Your task to perform on an android device: Search for Italian restaurants on Maps Image 0: 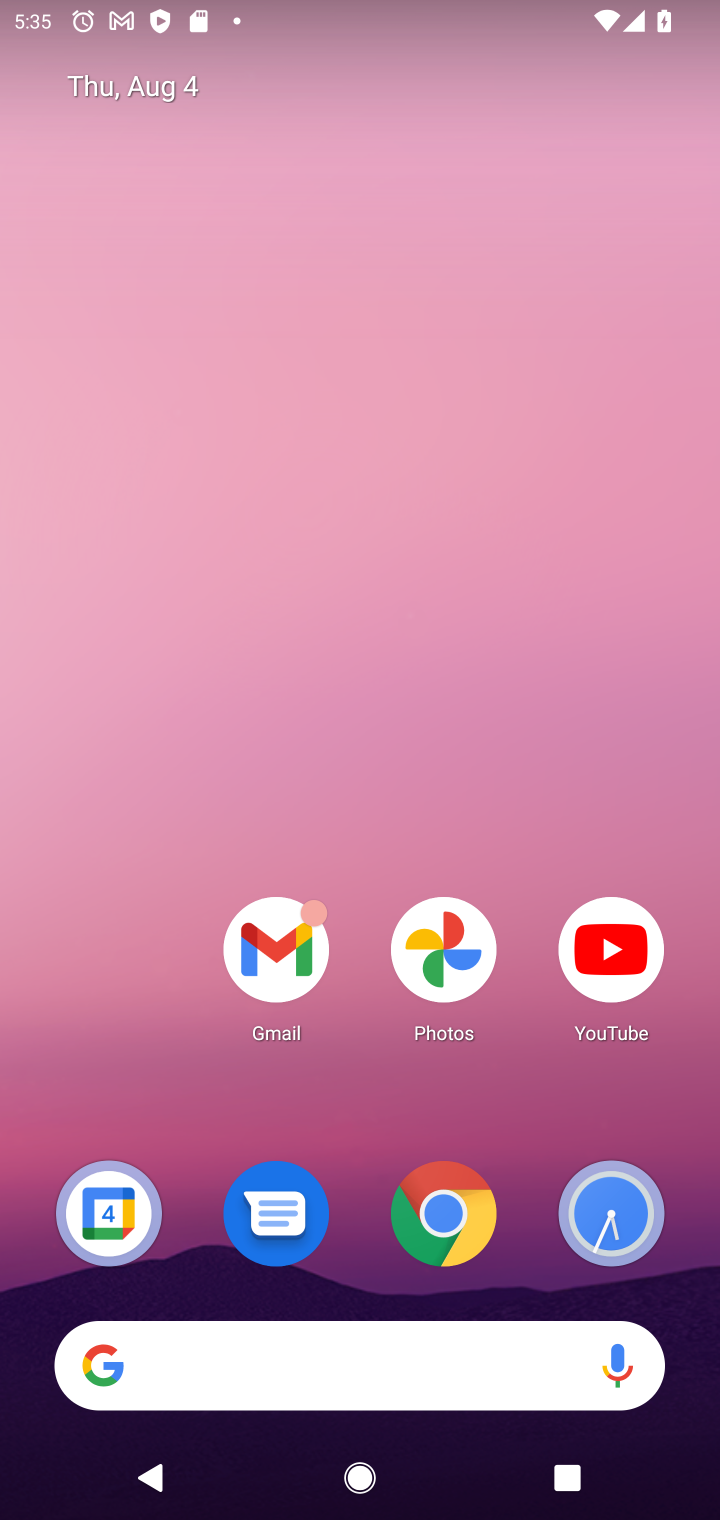
Step 0: drag from (171, 1073) to (247, 85)
Your task to perform on an android device: Search for Italian restaurants on Maps Image 1: 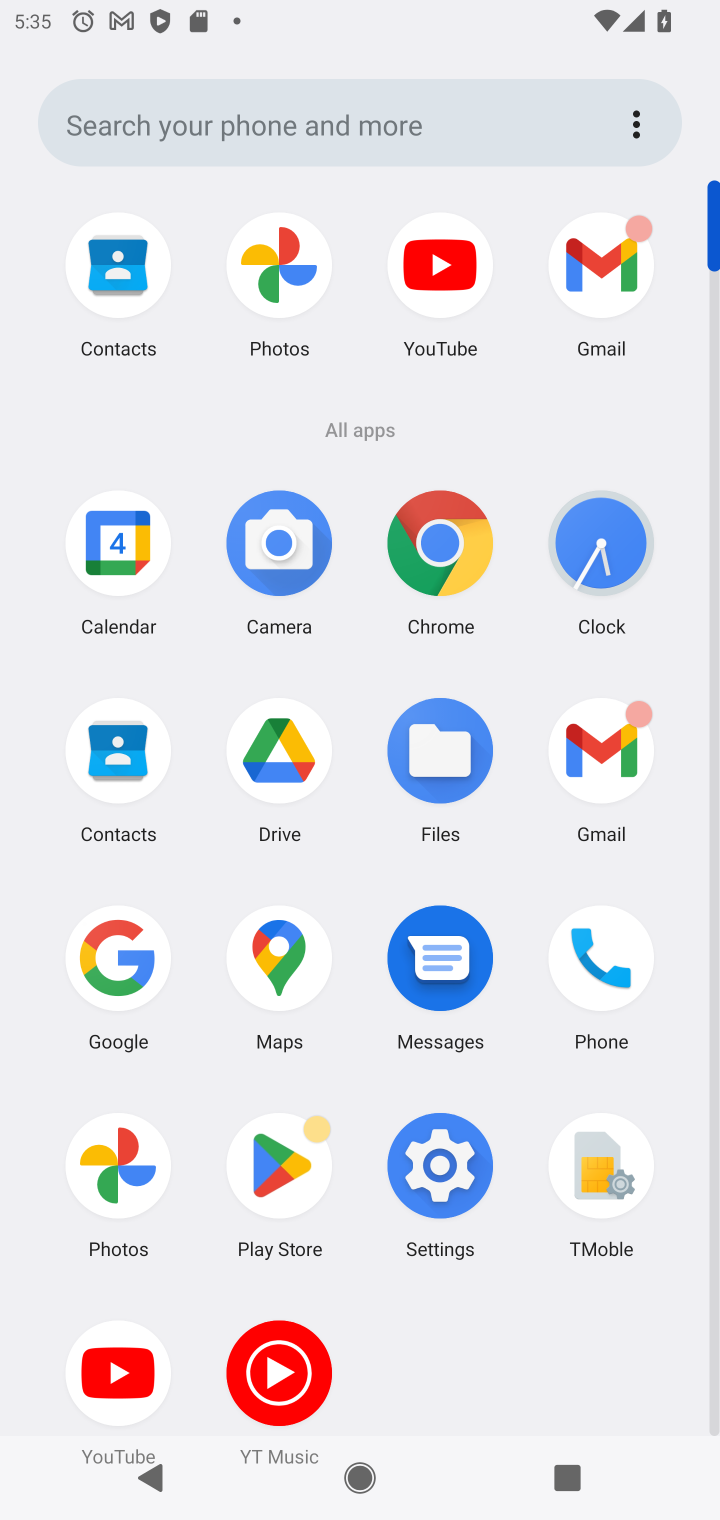
Step 1: click (287, 962)
Your task to perform on an android device: Search for Italian restaurants on Maps Image 2: 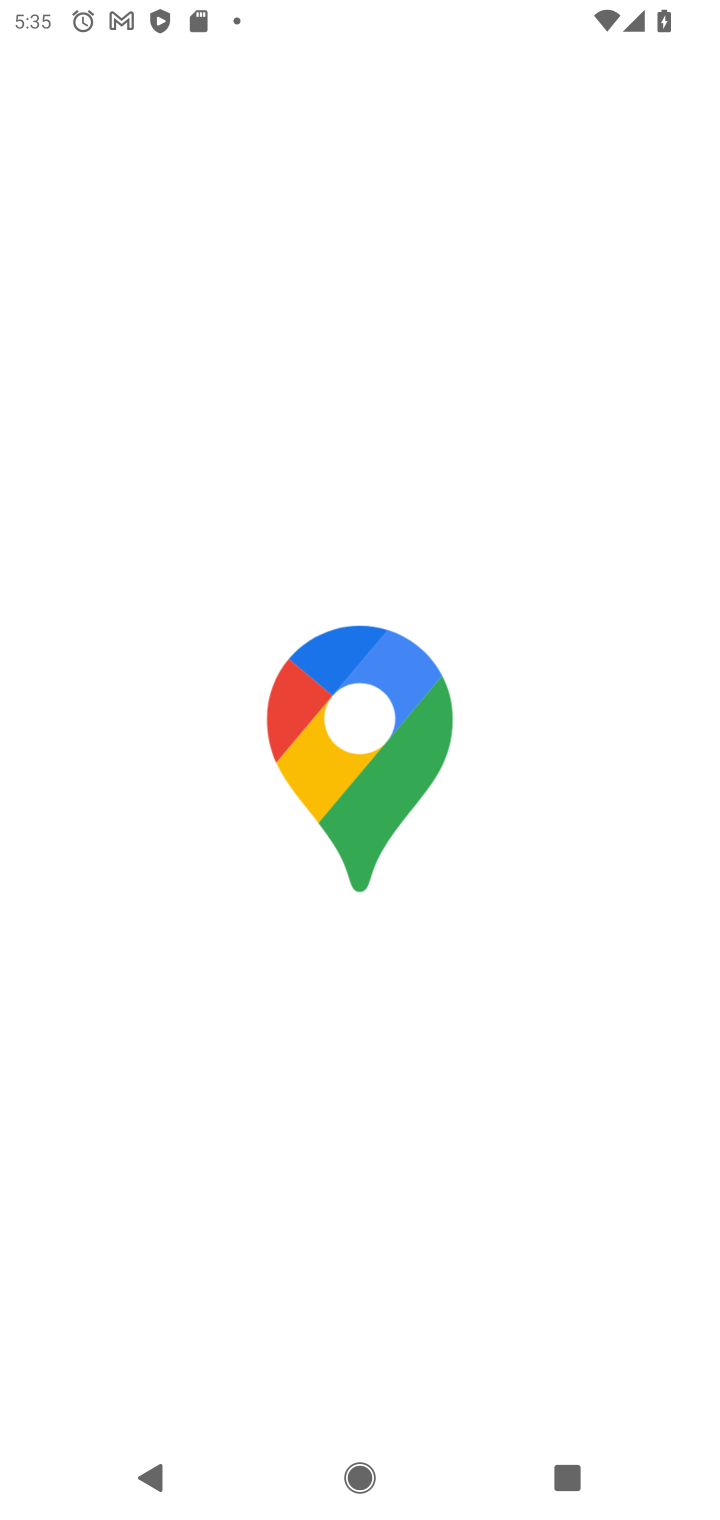
Step 2: click (455, 632)
Your task to perform on an android device: Search for Italian restaurants on Maps Image 3: 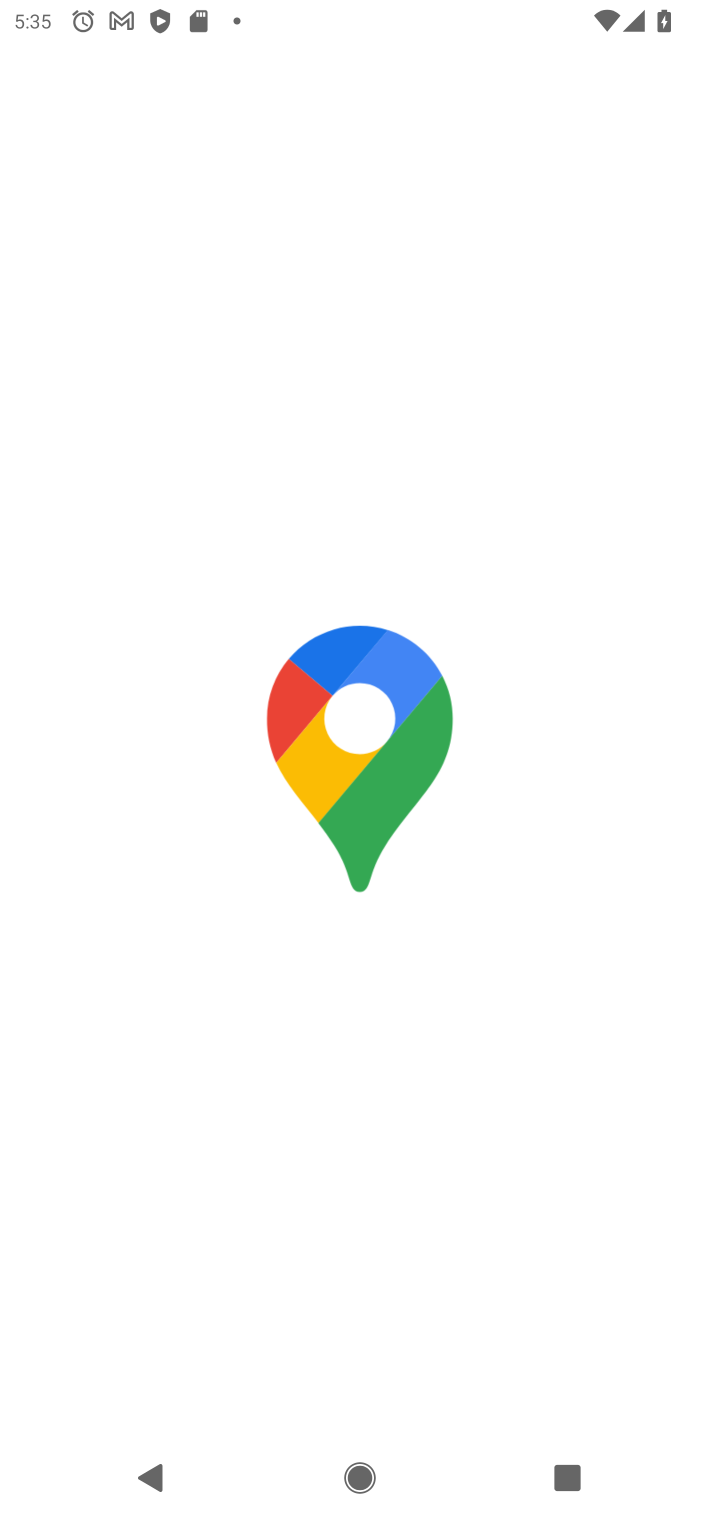
Step 3: drag from (470, 605) to (488, 1000)
Your task to perform on an android device: Search for Italian restaurants on Maps Image 4: 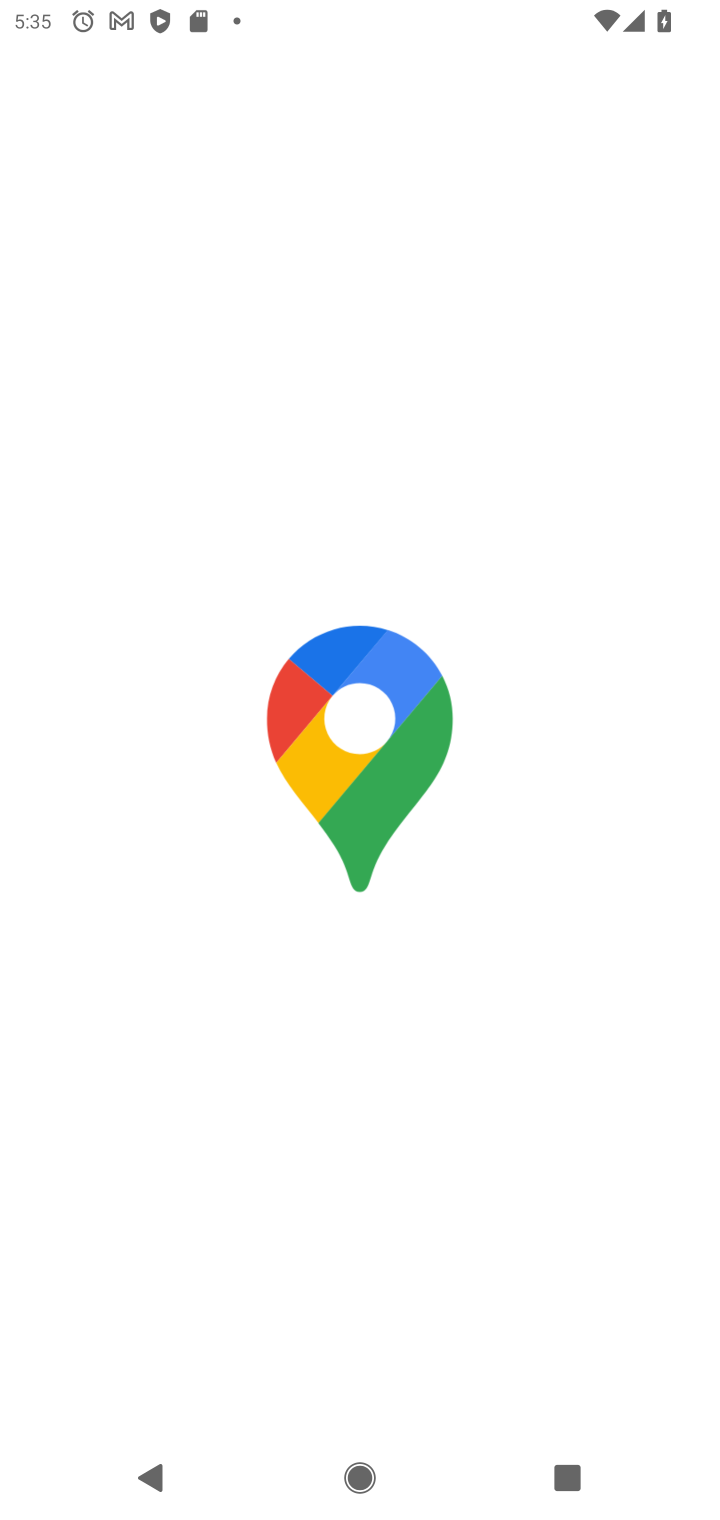
Step 4: drag from (501, 879) to (500, 406)
Your task to perform on an android device: Search for Italian restaurants on Maps Image 5: 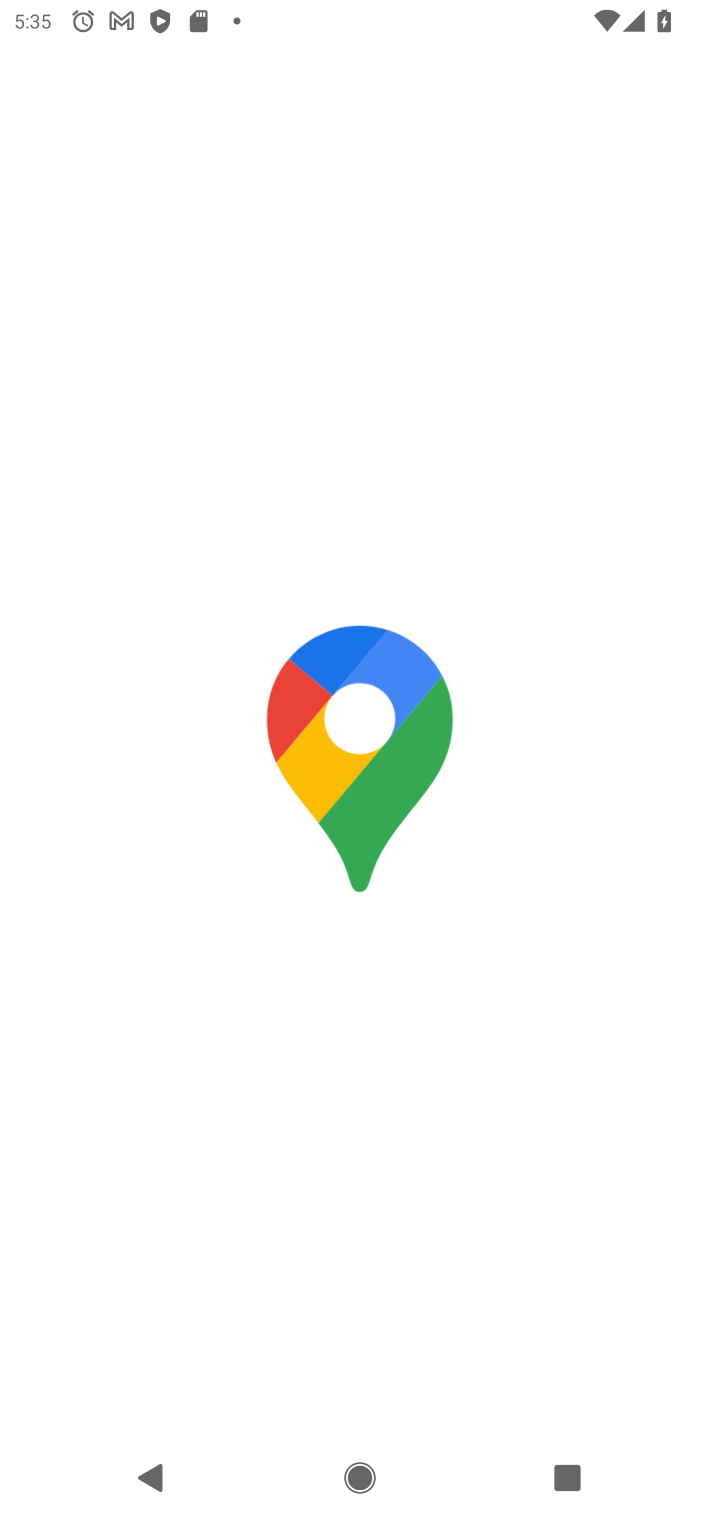
Step 5: drag from (545, 895) to (476, 311)
Your task to perform on an android device: Search for Italian restaurants on Maps Image 6: 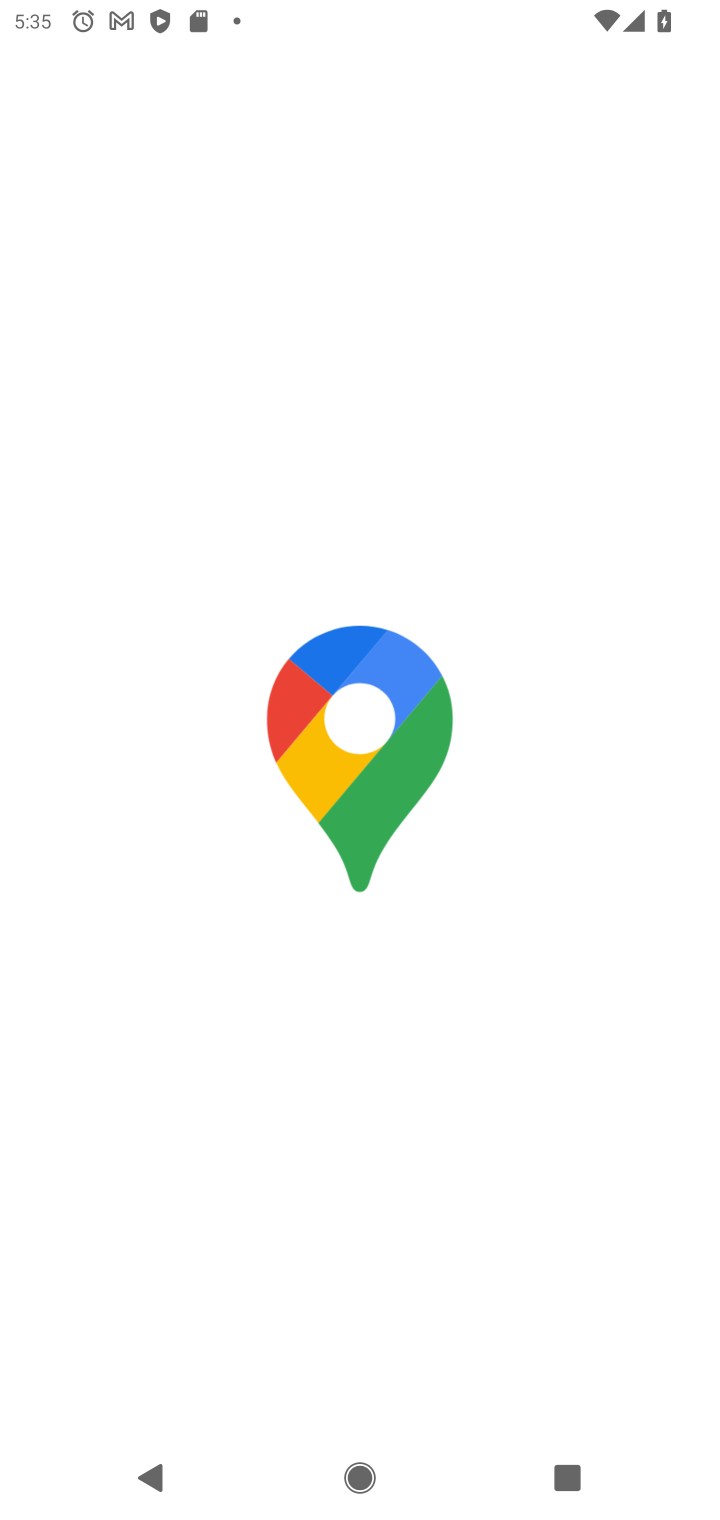
Step 6: click (318, 367)
Your task to perform on an android device: Search for Italian restaurants on Maps Image 7: 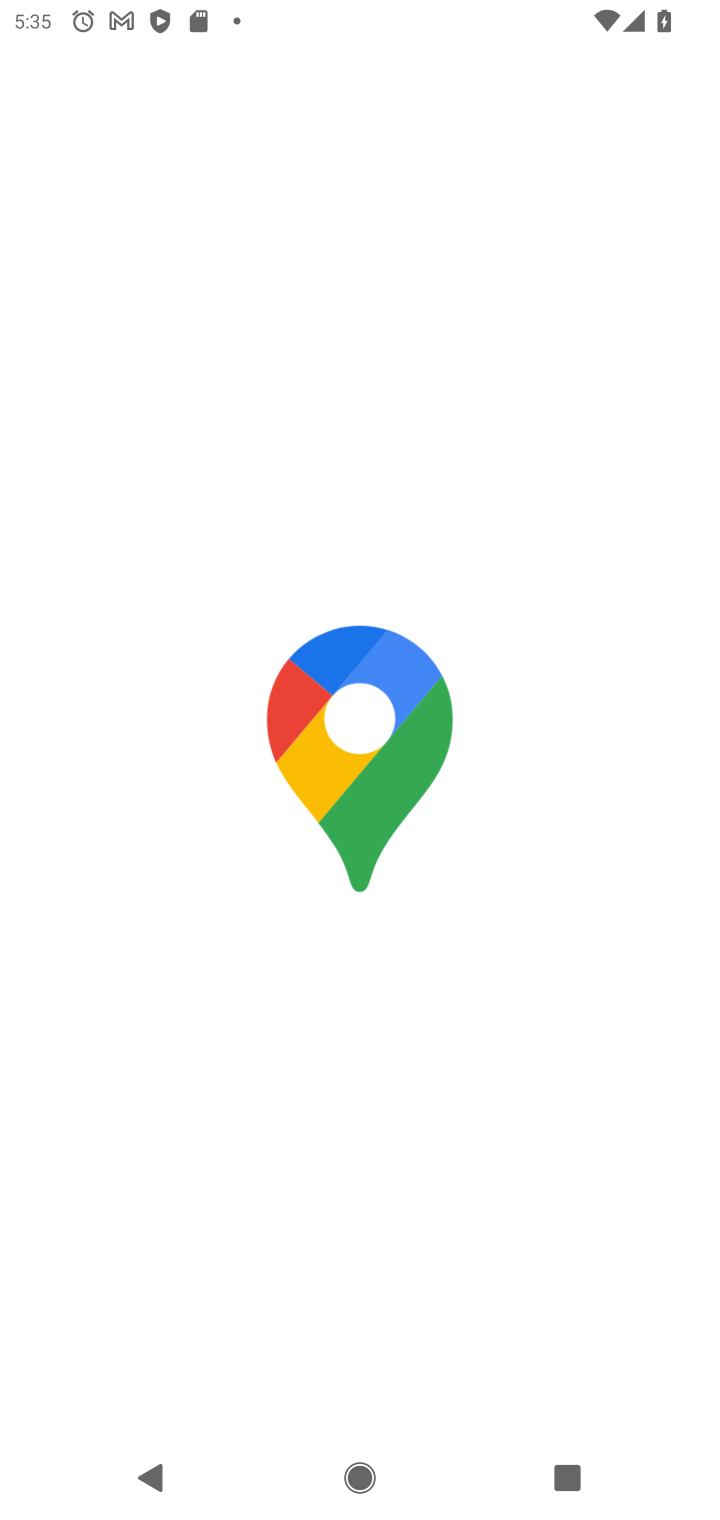
Step 7: drag from (341, 1006) to (371, 552)
Your task to perform on an android device: Search for Italian restaurants on Maps Image 8: 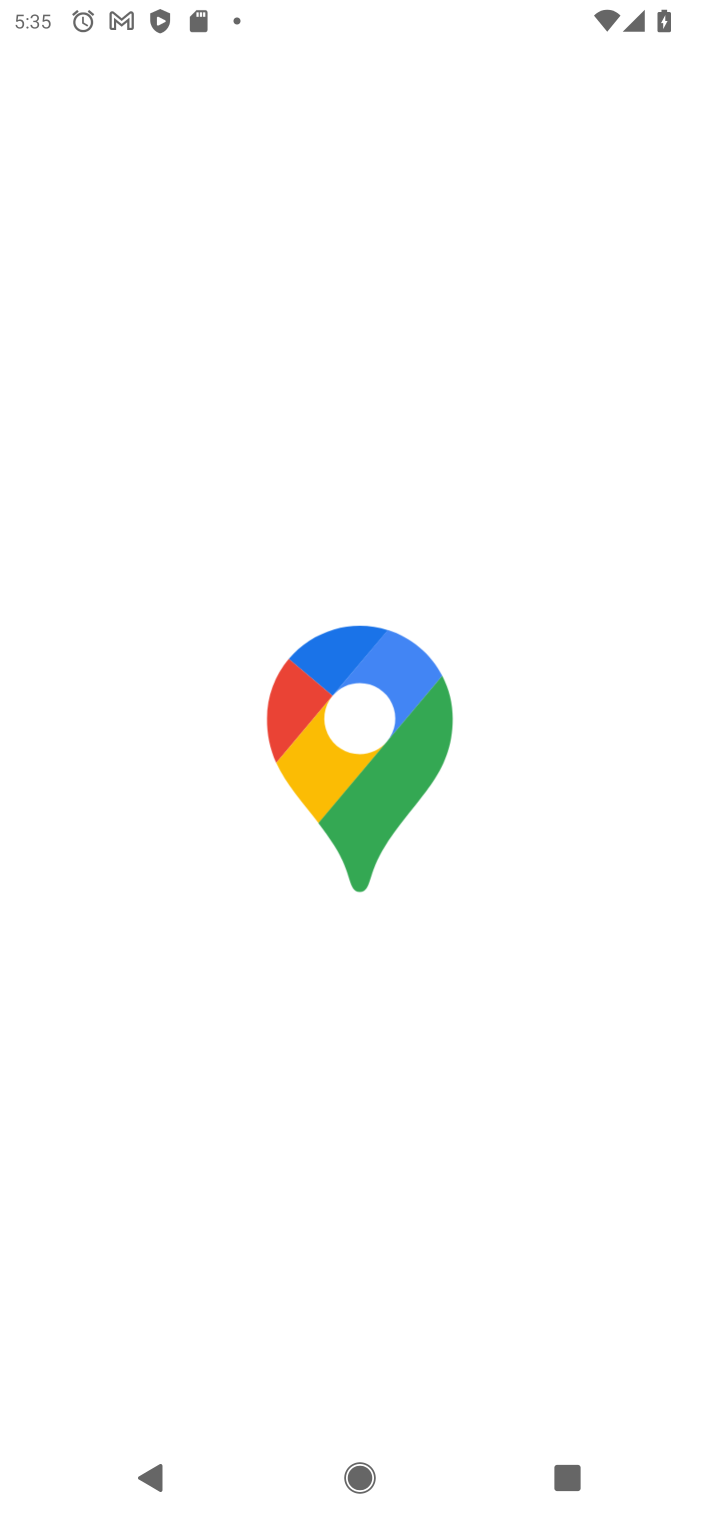
Step 8: click (371, 525)
Your task to perform on an android device: Search for Italian restaurants on Maps Image 9: 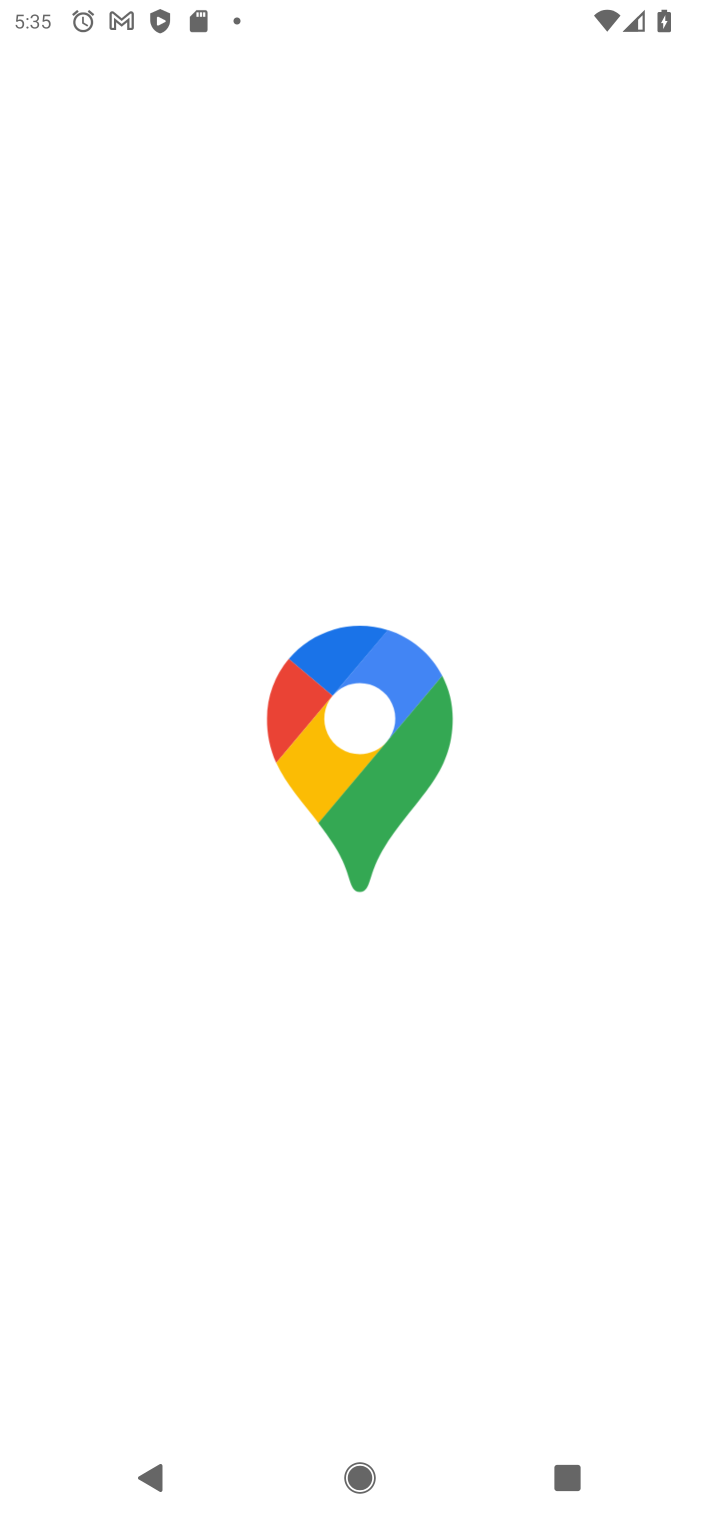
Step 9: press home button
Your task to perform on an android device: Search for Italian restaurants on Maps Image 10: 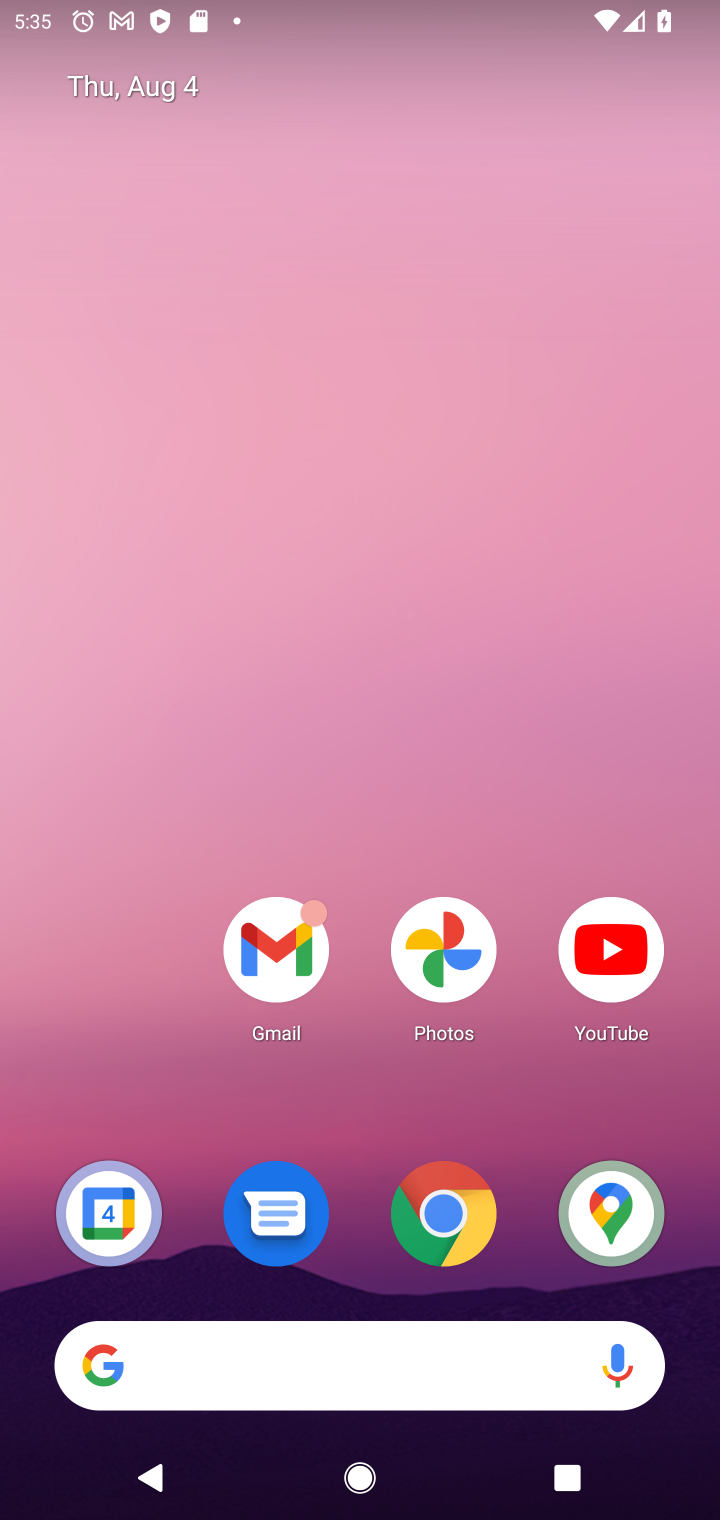
Step 10: drag from (179, 797) to (198, 901)
Your task to perform on an android device: Search for Italian restaurants on Maps Image 11: 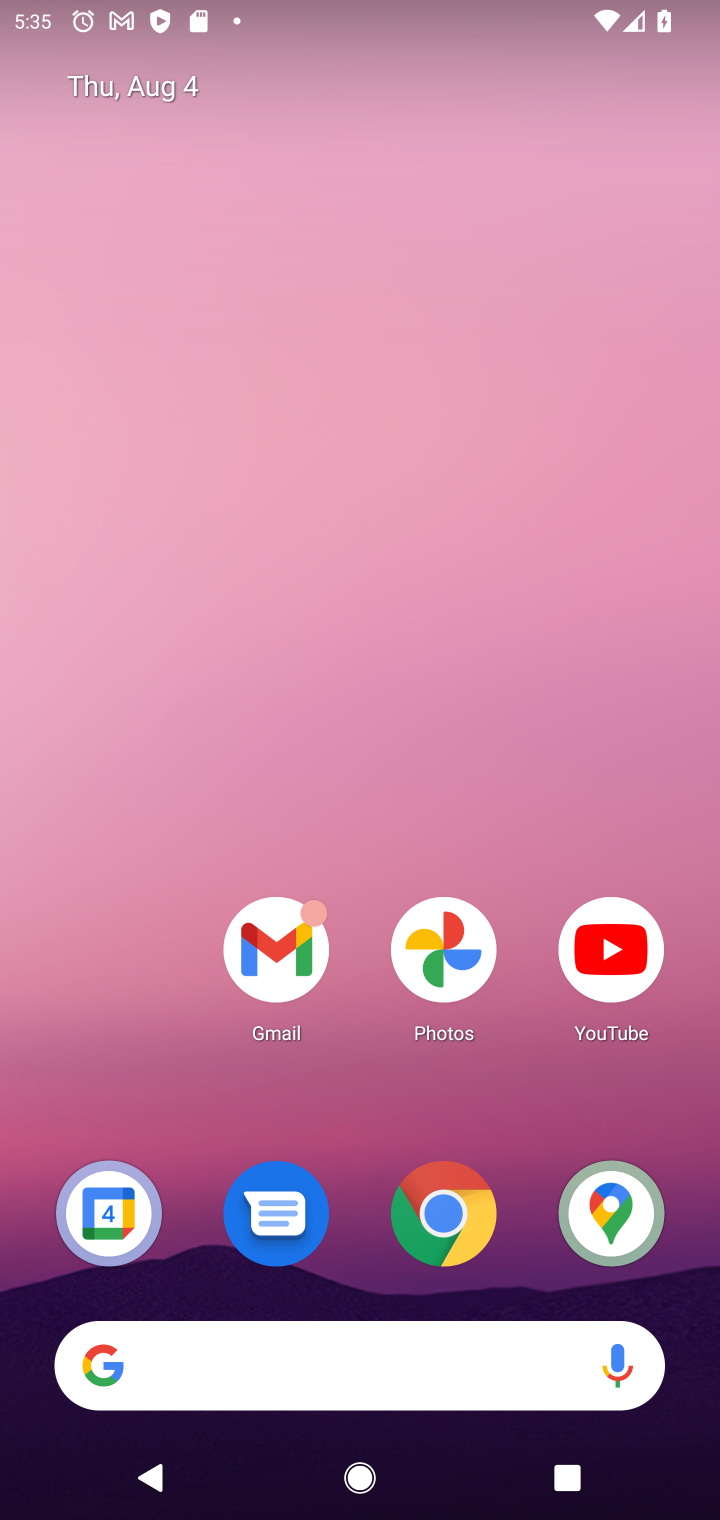
Step 11: click (623, 1215)
Your task to perform on an android device: Search for Italian restaurants on Maps Image 12: 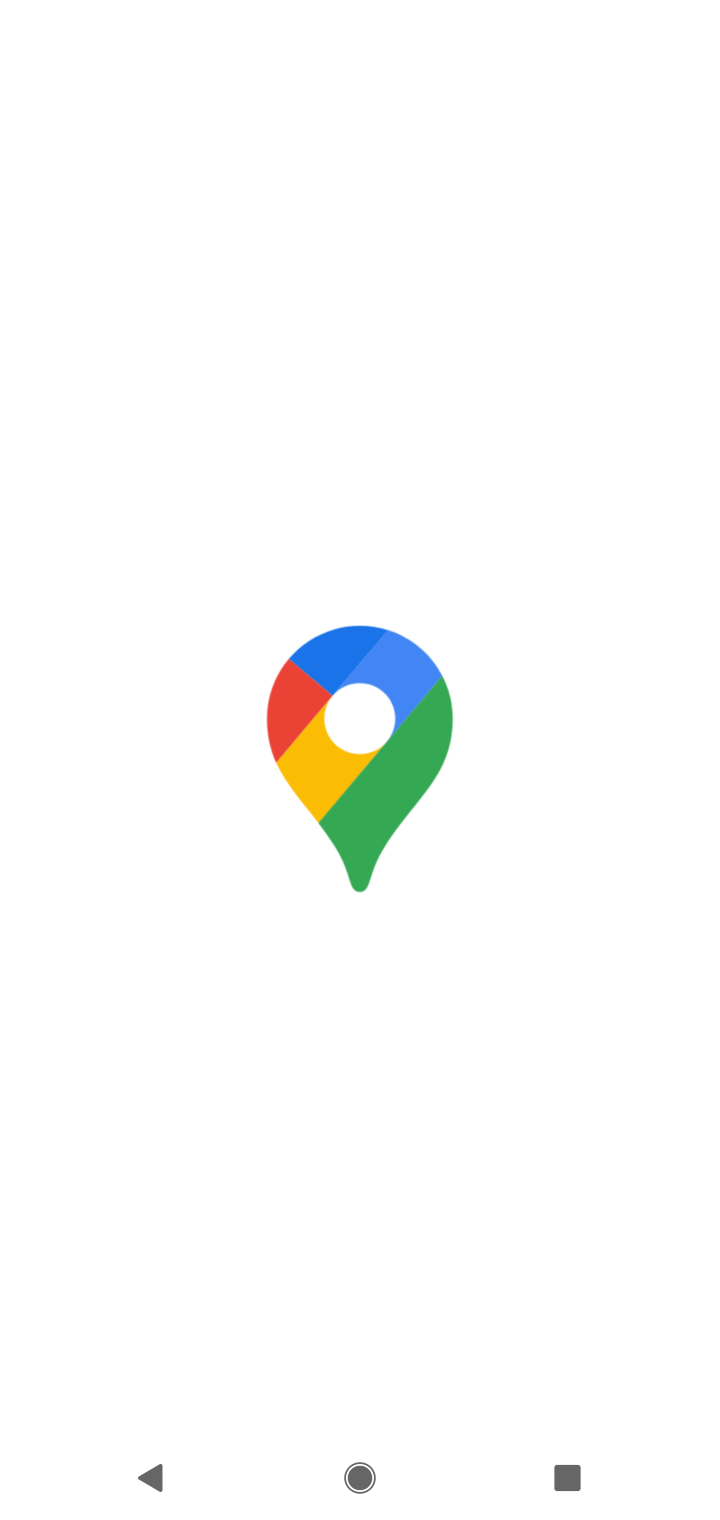
Step 12: task complete